Your task to perform on an android device: When is my next meeting? Image 0: 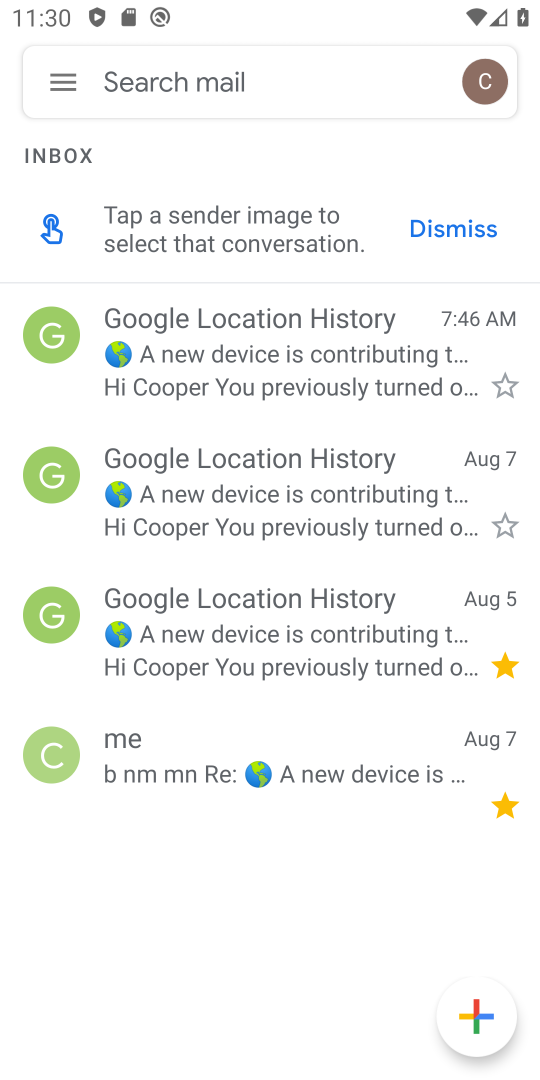
Step 0: press home button
Your task to perform on an android device: When is my next meeting? Image 1: 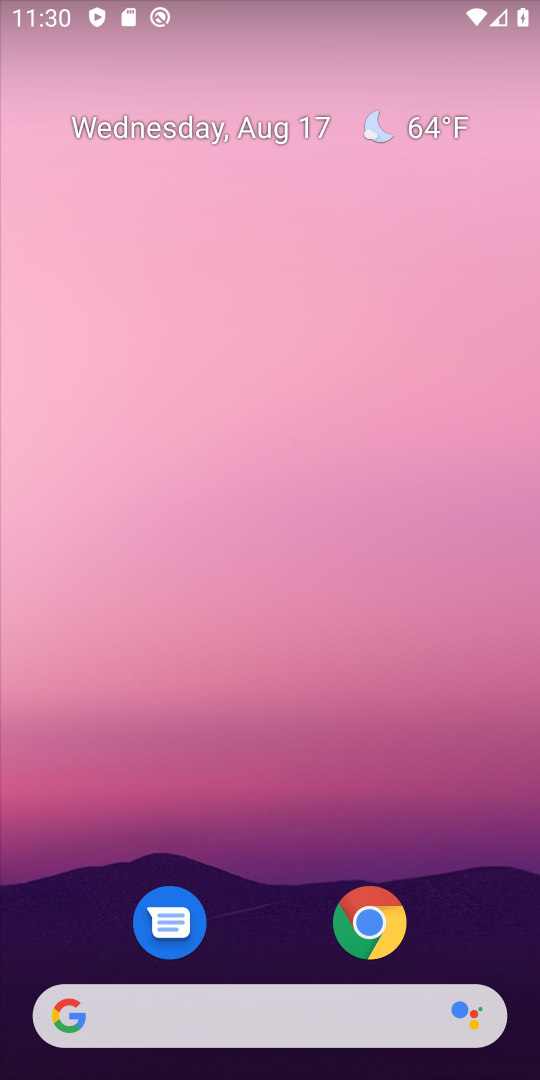
Step 1: drag from (244, 941) to (197, 283)
Your task to perform on an android device: When is my next meeting? Image 2: 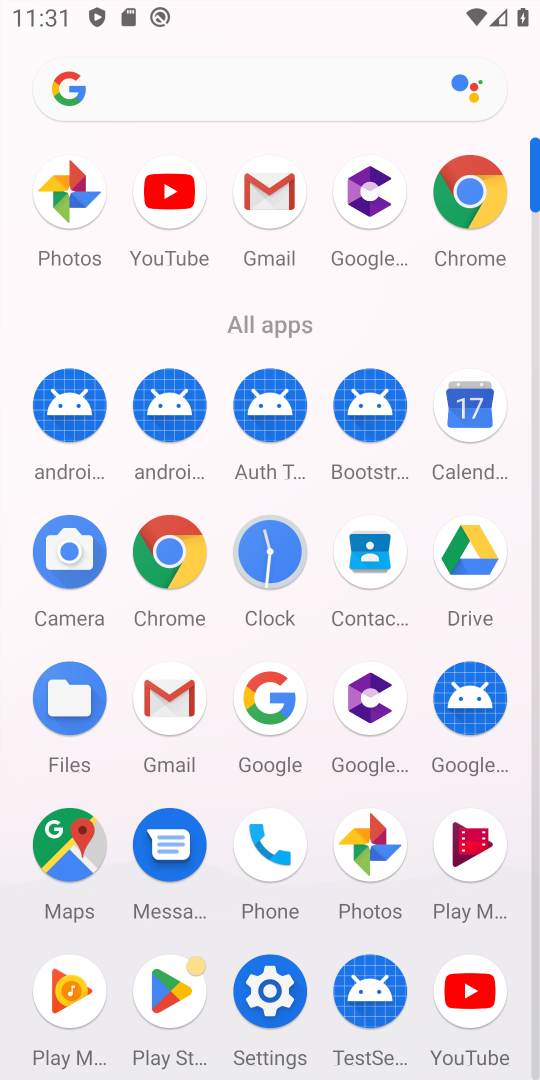
Step 2: click (457, 422)
Your task to perform on an android device: When is my next meeting? Image 3: 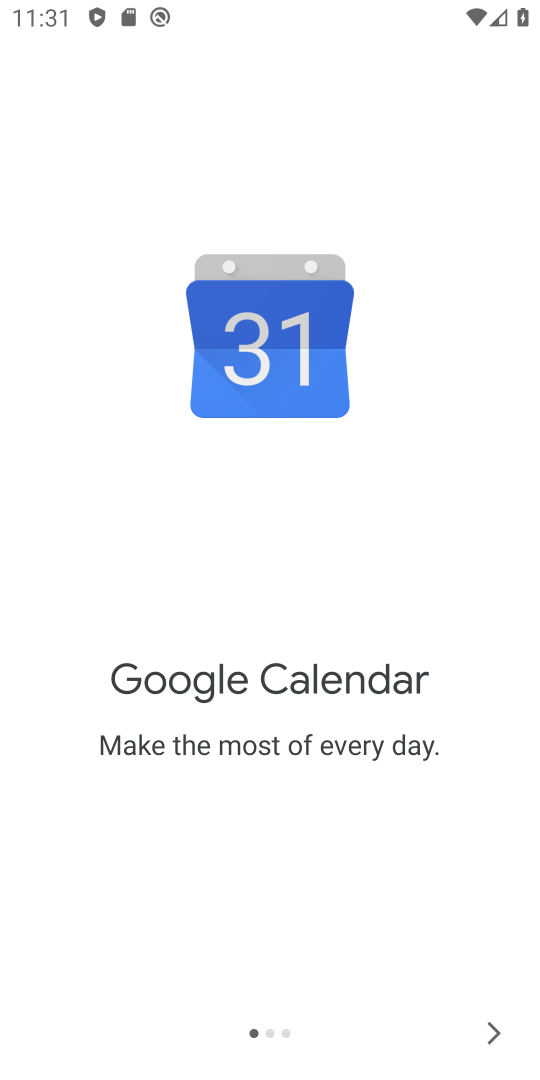
Step 3: click (491, 1033)
Your task to perform on an android device: When is my next meeting? Image 4: 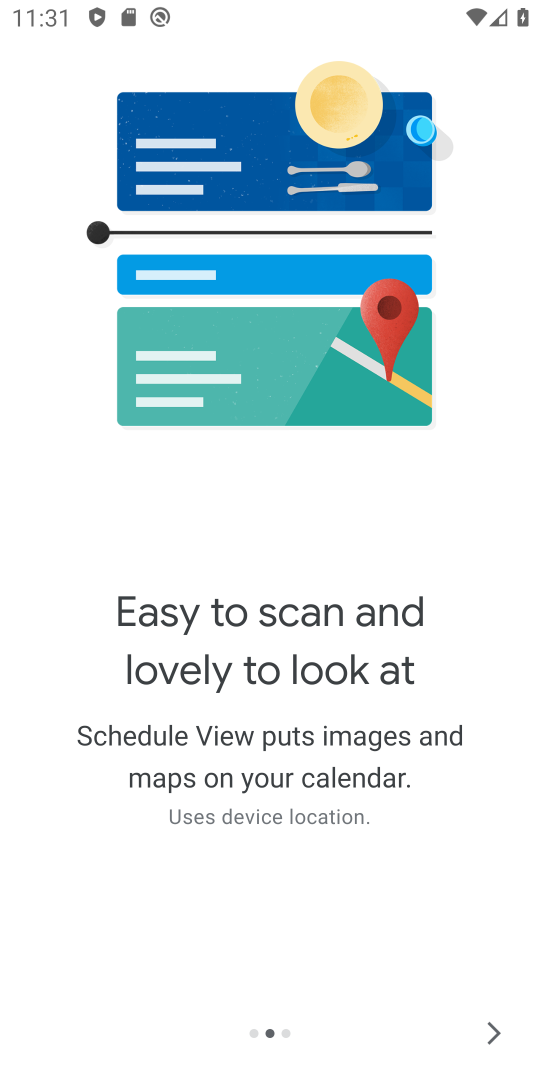
Step 4: click (485, 1020)
Your task to perform on an android device: When is my next meeting? Image 5: 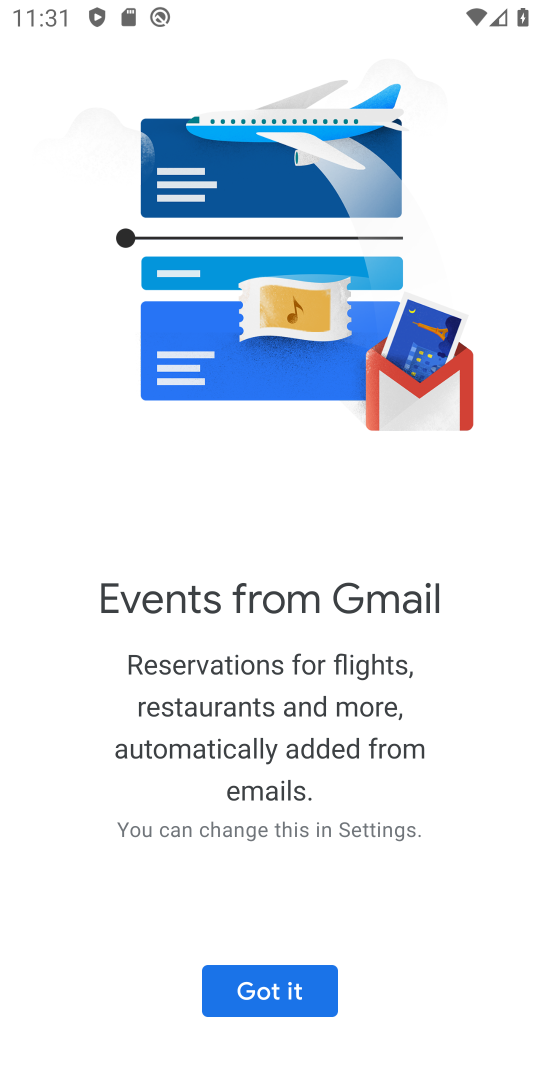
Step 5: click (296, 994)
Your task to perform on an android device: When is my next meeting? Image 6: 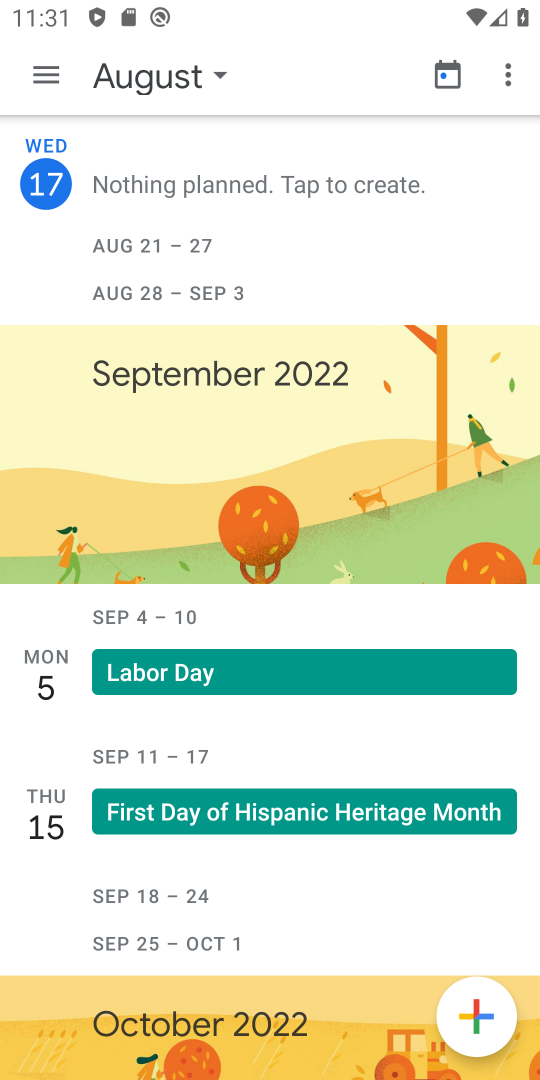
Step 6: click (46, 75)
Your task to perform on an android device: When is my next meeting? Image 7: 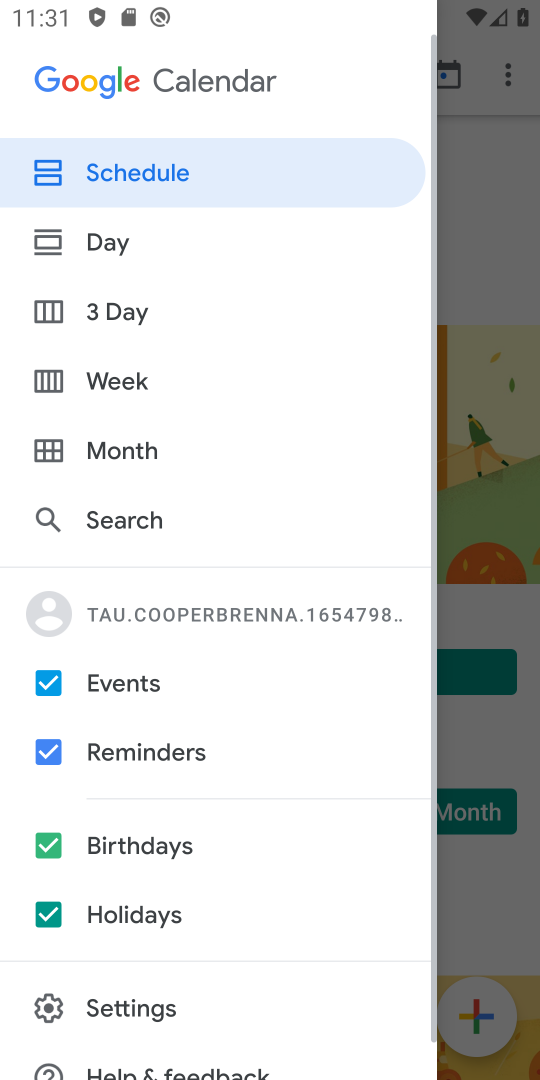
Step 7: click (102, 241)
Your task to perform on an android device: When is my next meeting? Image 8: 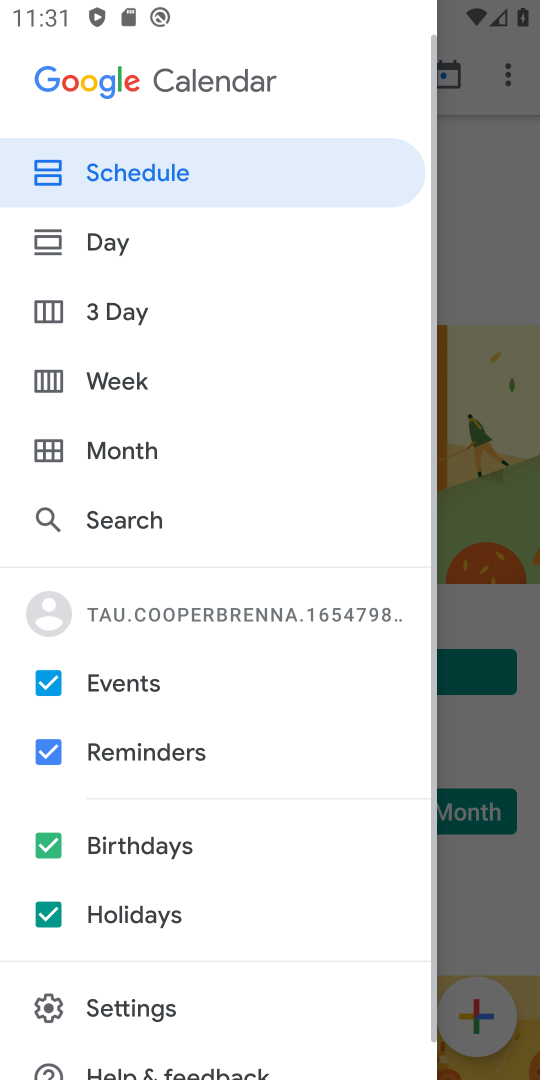
Step 8: click (111, 231)
Your task to perform on an android device: When is my next meeting? Image 9: 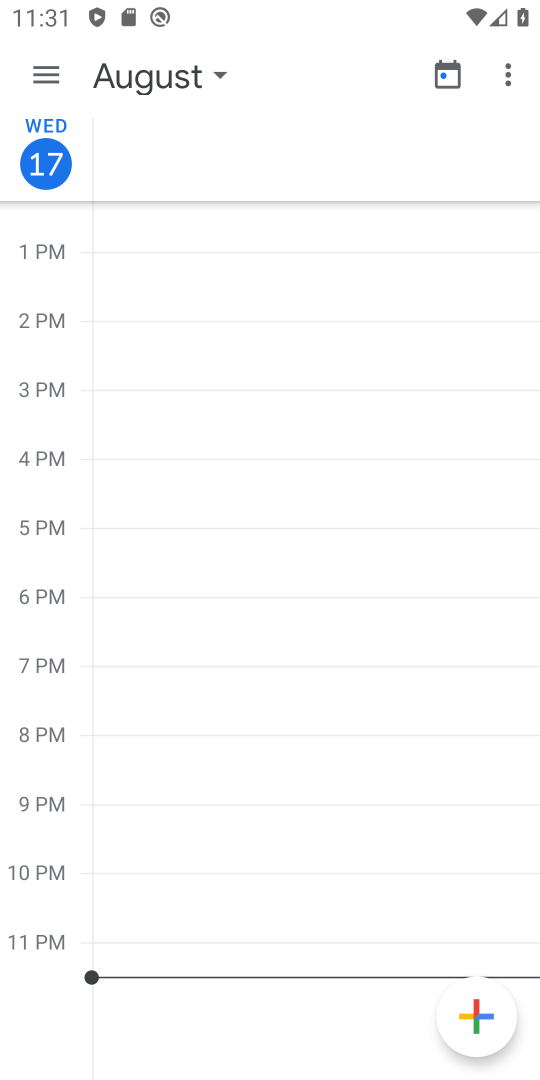
Step 9: task complete